Your task to perform on an android device: Is it going to rain tomorrow? Image 0: 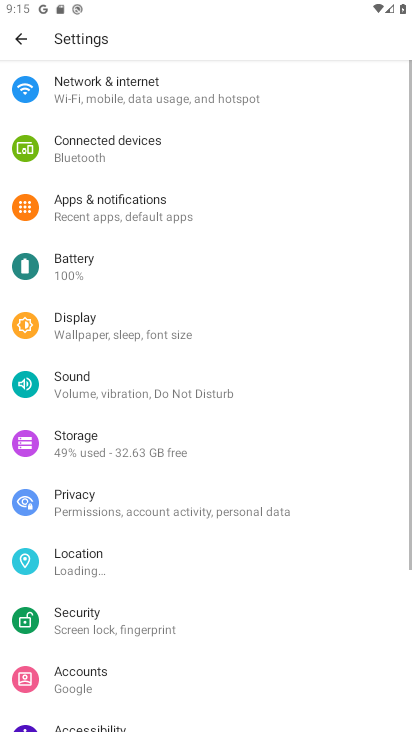
Step 0: drag from (208, 614) to (191, 211)
Your task to perform on an android device: Is it going to rain tomorrow? Image 1: 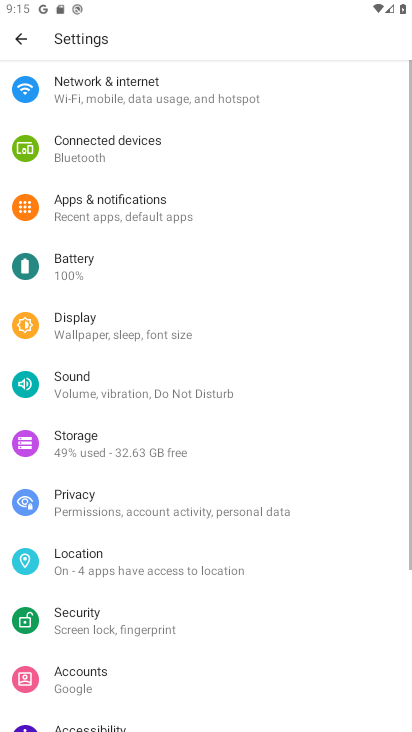
Step 1: press back button
Your task to perform on an android device: Is it going to rain tomorrow? Image 2: 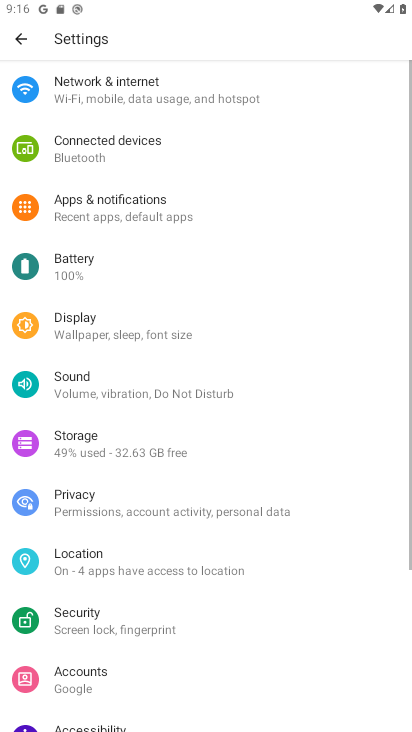
Step 2: press back button
Your task to perform on an android device: Is it going to rain tomorrow? Image 3: 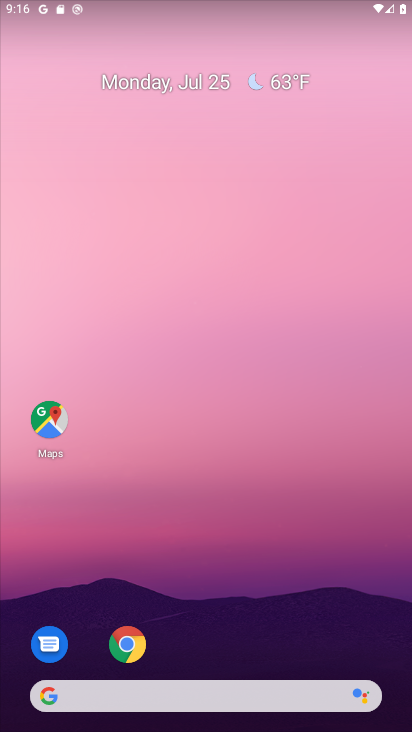
Step 3: click (263, 93)
Your task to perform on an android device: Is it going to rain tomorrow? Image 4: 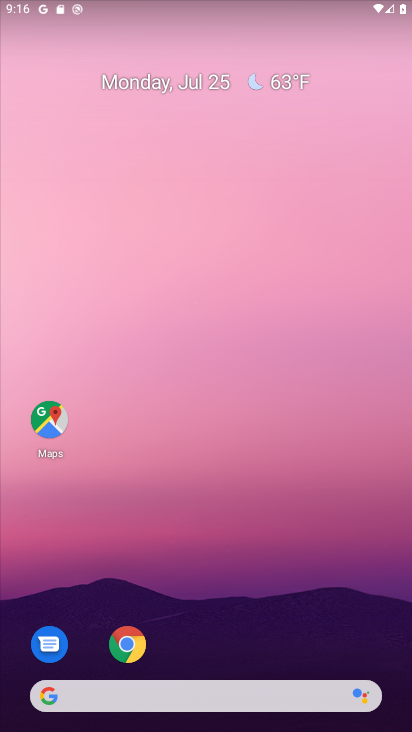
Step 4: click (266, 92)
Your task to perform on an android device: Is it going to rain tomorrow? Image 5: 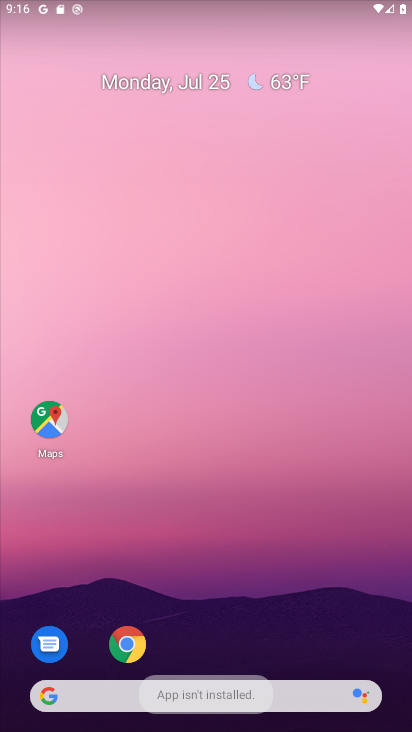
Step 5: click (266, 90)
Your task to perform on an android device: Is it going to rain tomorrow? Image 6: 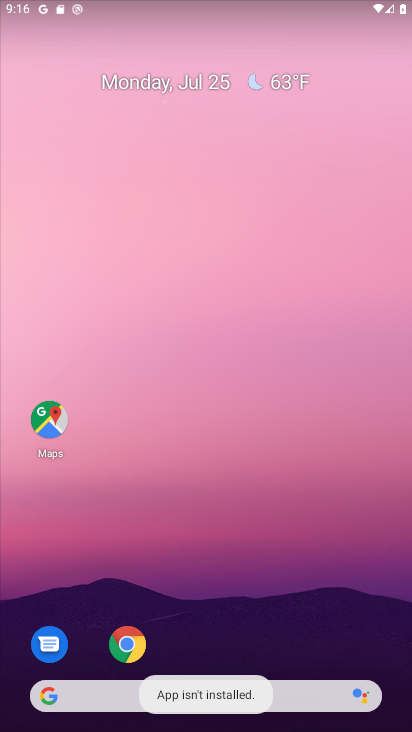
Step 6: click (266, 88)
Your task to perform on an android device: Is it going to rain tomorrow? Image 7: 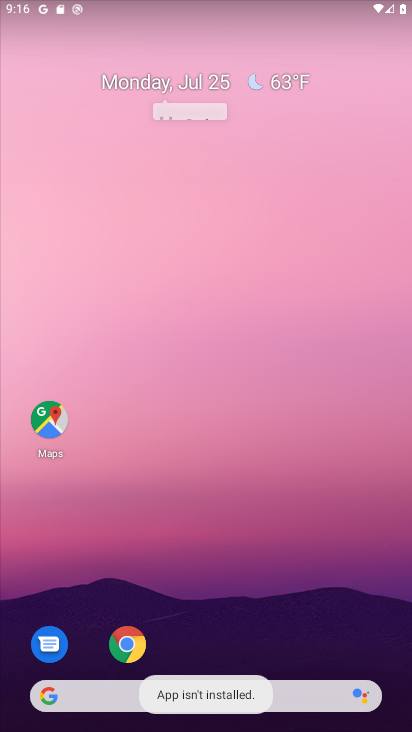
Step 7: drag from (266, 88) to (192, 566)
Your task to perform on an android device: Is it going to rain tomorrow? Image 8: 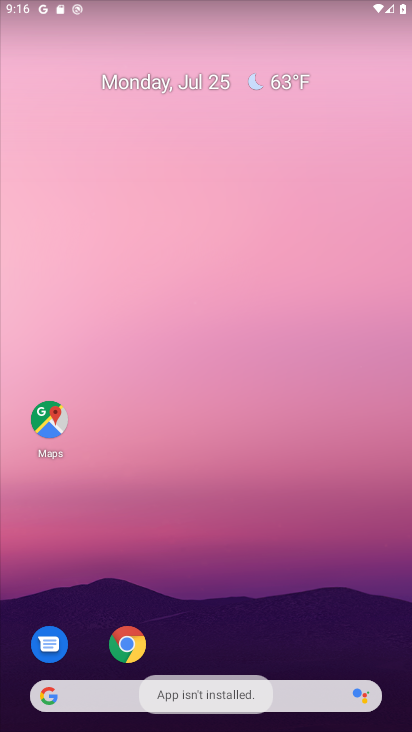
Step 8: drag from (266, 83) to (198, 411)
Your task to perform on an android device: Is it going to rain tomorrow? Image 9: 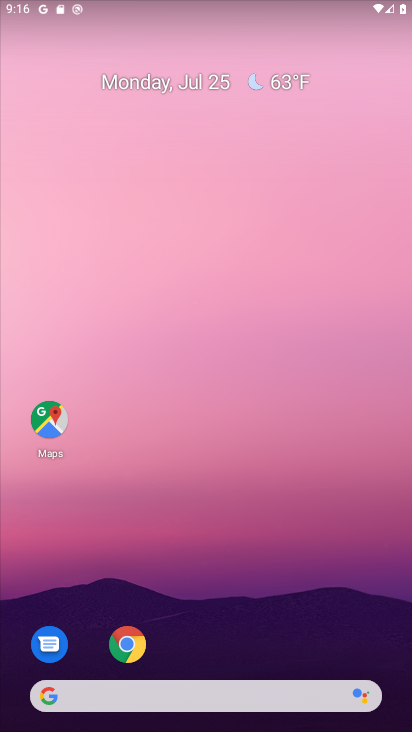
Step 9: drag from (248, 92) to (249, 713)
Your task to perform on an android device: Is it going to rain tomorrow? Image 10: 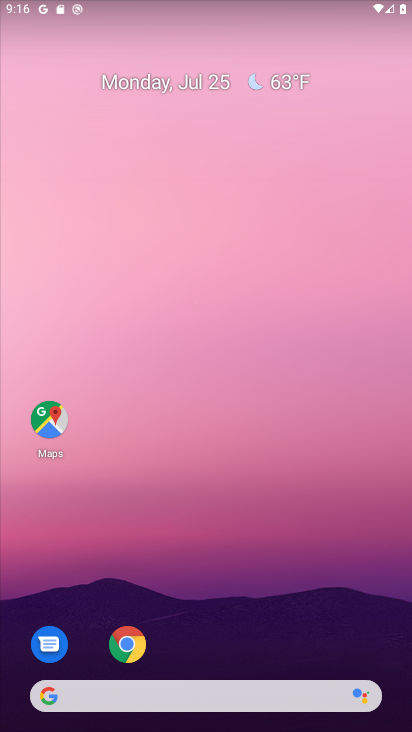
Step 10: drag from (206, 602) to (206, 27)
Your task to perform on an android device: Is it going to rain tomorrow? Image 11: 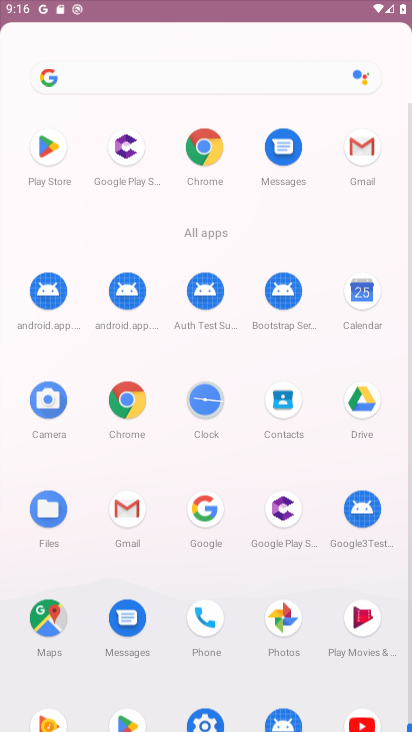
Step 11: drag from (249, 516) to (248, 6)
Your task to perform on an android device: Is it going to rain tomorrow? Image 12: 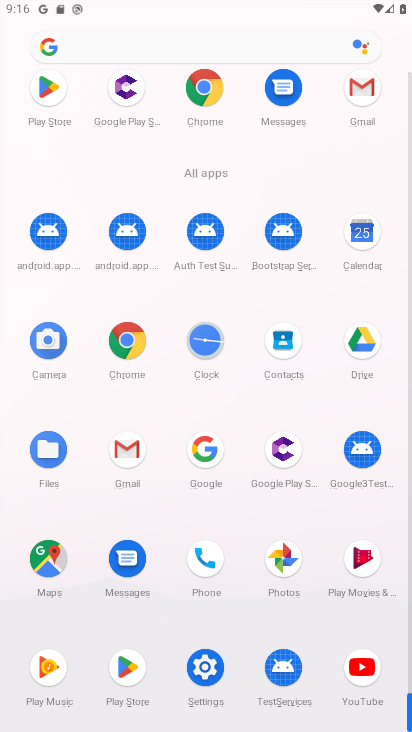
Step 12: click (203, 96)
Your task to perform on an android device: Is it going to rain tomorrow? Image 13: 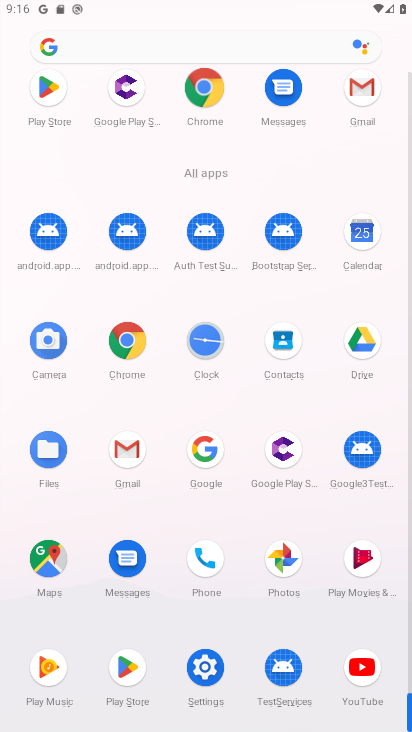
Step 13: click (204, 93)
Your task to perform on an android device: Is it going to rain tomorrow? Image 14: 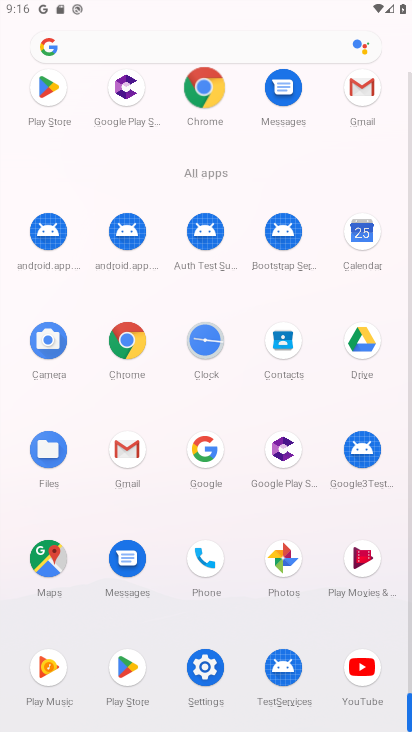
Step 14: click (204, 93)
Your task to perform on an android device: Is it going to rain tomorrow? Image 15: 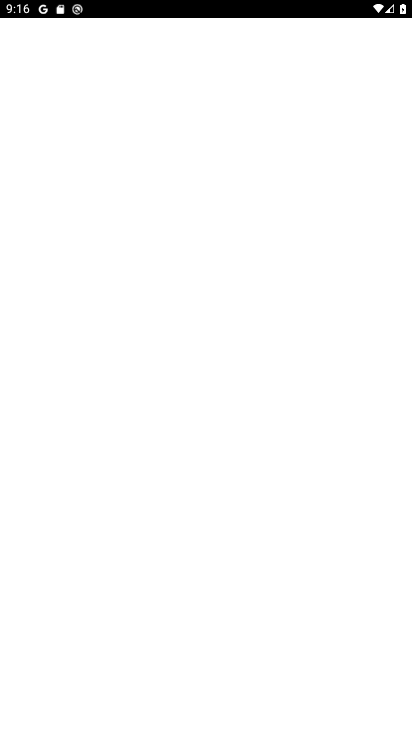
Step 15: click (208, 93)
Your task to perform on an android device: Is it going to rain tomorrow? Image 16: 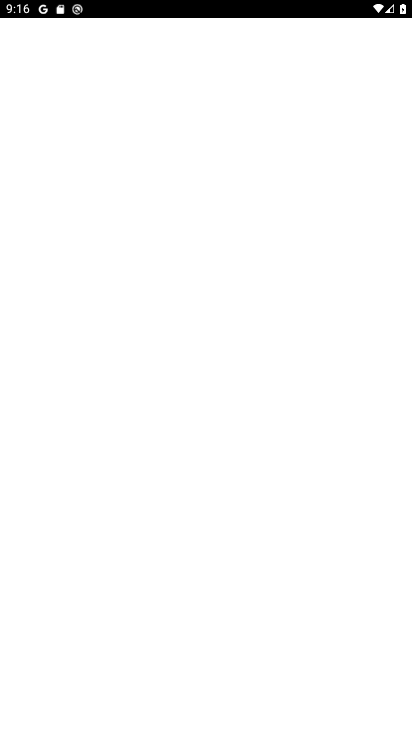
Step 16: click (209, 93)
Your task to perform on an android device: Is it going to rain tomorrow? Image 17: 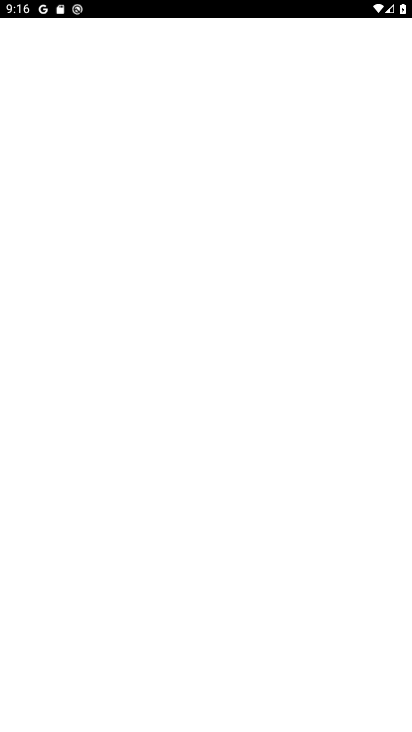
Step 17: click (212, 93)
Your task to perform on an android device: Is it going to rain tomorrow? Image 18: 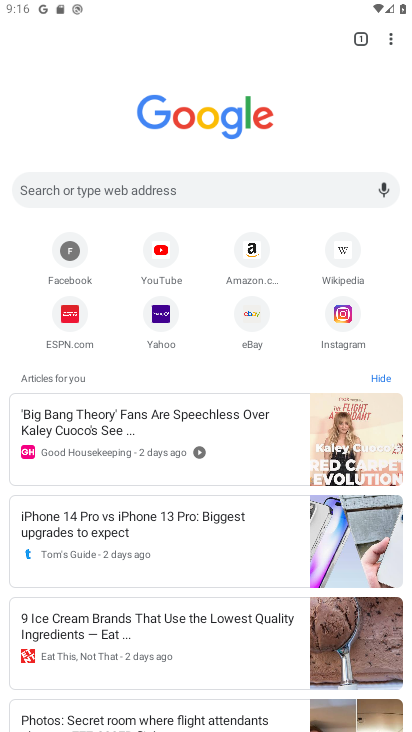
Step 18: click (69, 183)
Your task to perform on an android device: Is it going to rain tomorrow? Image 19: 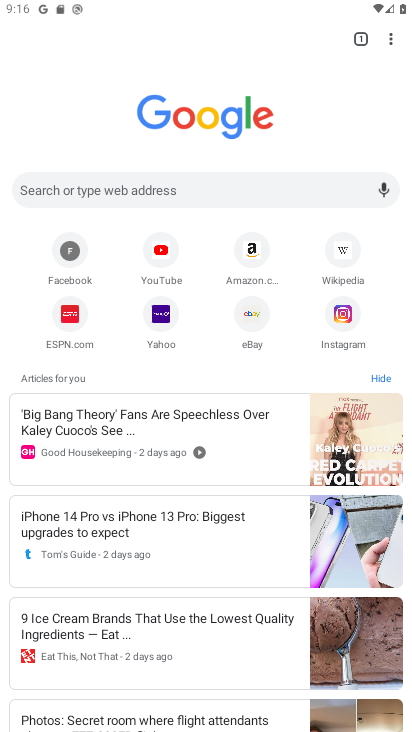
Step 19: click (68, 182)
Your task to perform on an android device: Is it going to rain tomorrow? Image 20: 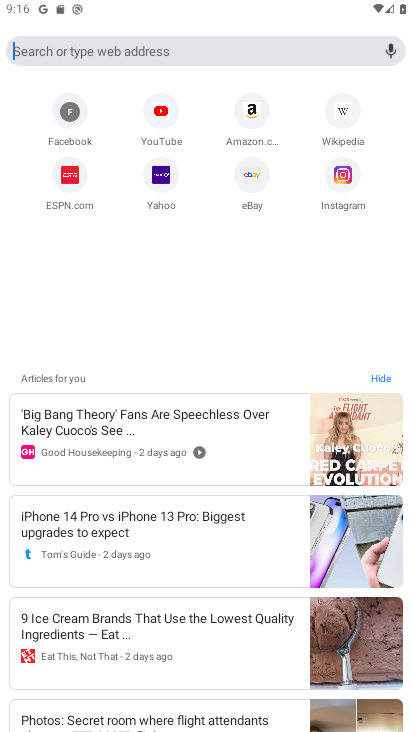
Step 20: click (70, 182)
Your task to perform on an android device: Is it going to rain tomorrow? Image 21: 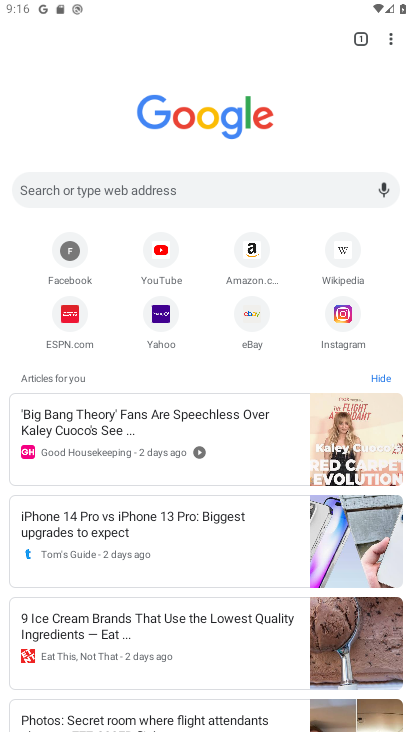
Step 21: click (58, 179)
Your task to perform on an android device: Is it going to rain tomorrow? Image 22: 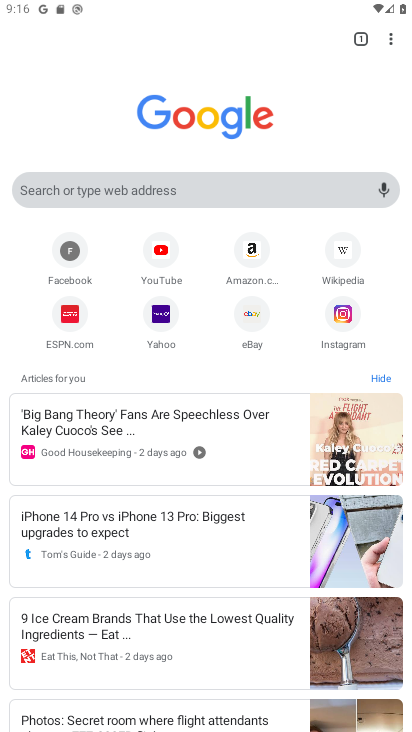
Step 22: click (50, 186)
Your task to perform on an android device: Is it going to rain tomorrow? Image 23: 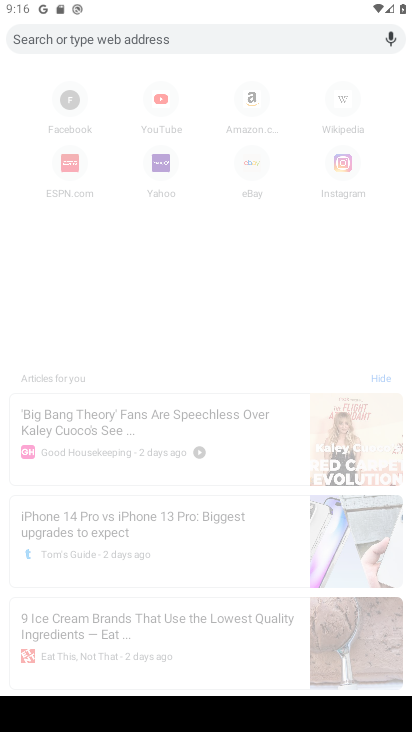
Step 23: type "rain"
Your task to perform on an android device: Is it going to rain tomorrow? Image 24: 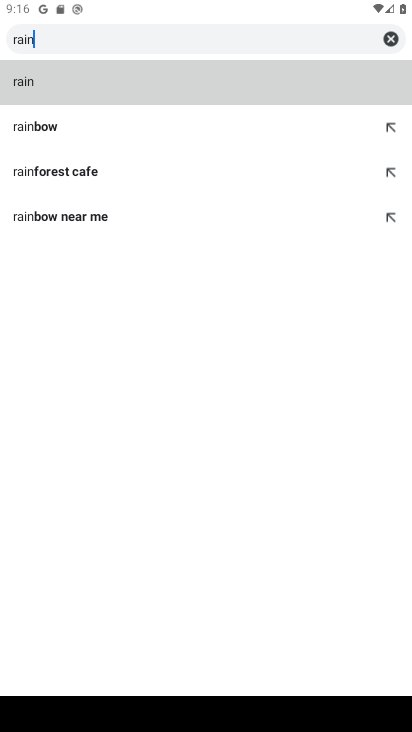
Step 24: click (56, 97)
Your task to perform on an android device: Is it going to rain tomorrow? Image 25: 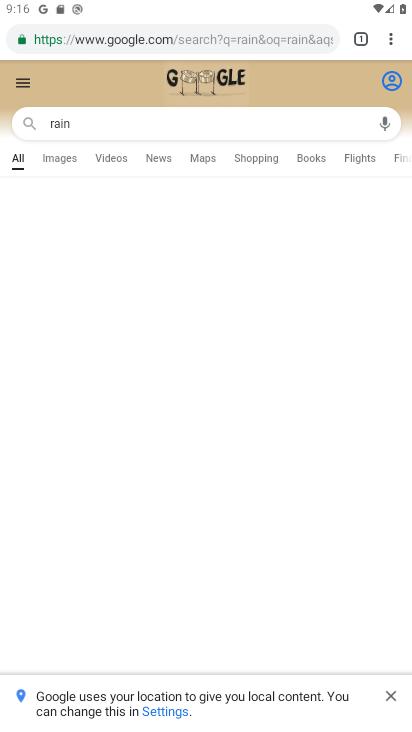
Step 25: task complete